Your task to perform on an android device: Open Wikipedia Image 0: 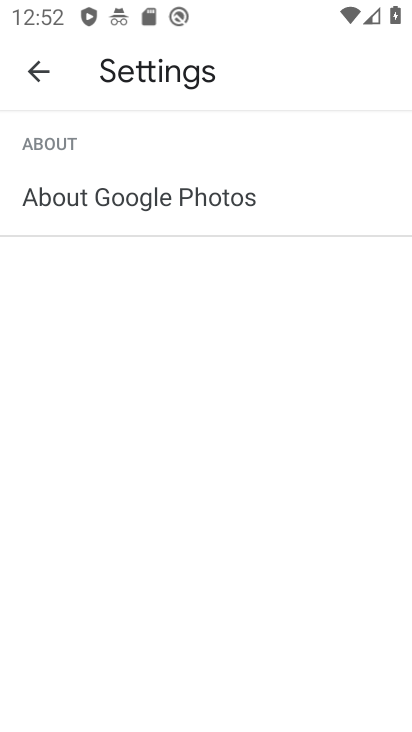
Step 0: press home button
Your task to perform on an android device: Open Wikipedia Image 1: 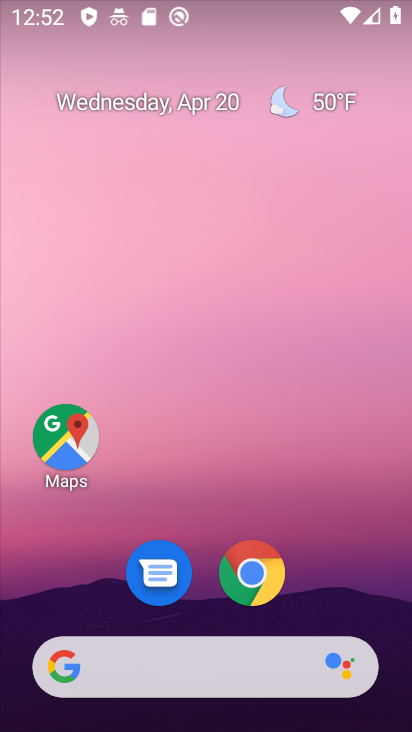
Step 1: click (250, 582)
Your task to perform on an android device: Open Wikipedia Image 2: 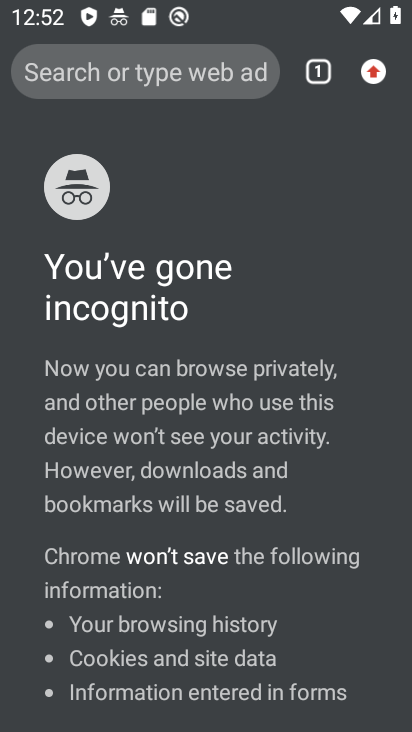
Step 2: click (373, 73)
Your task to perform on an android device: Open Wikipedia Image 3: 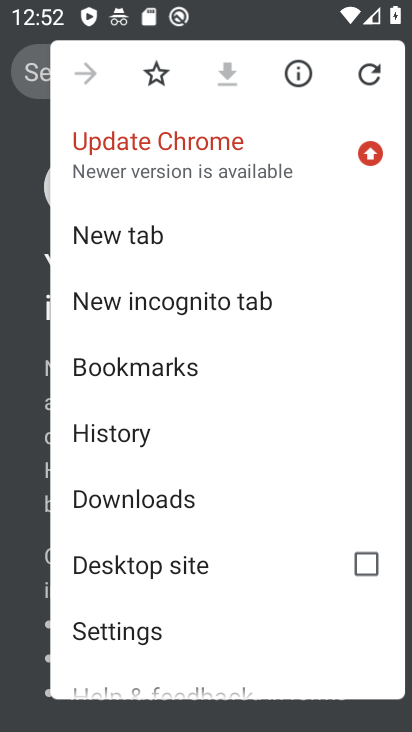
Step 3: click (147, 234)
Your task to perform on an android device: Open Wikipedia Image 4: 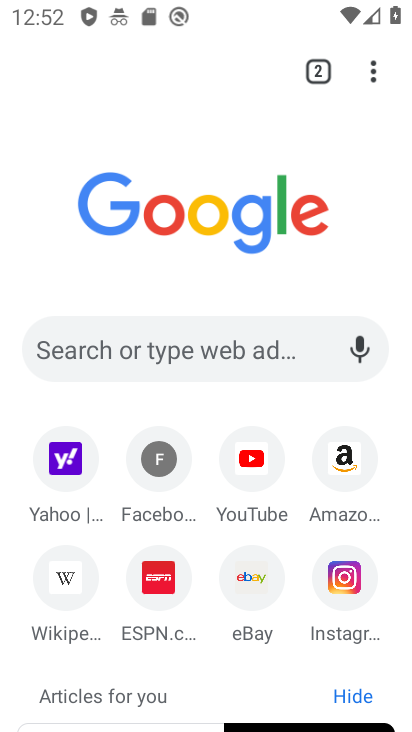
Step 4: click (60, 586)
Your task to perform on an android device: Open Wikipedia Image 5: 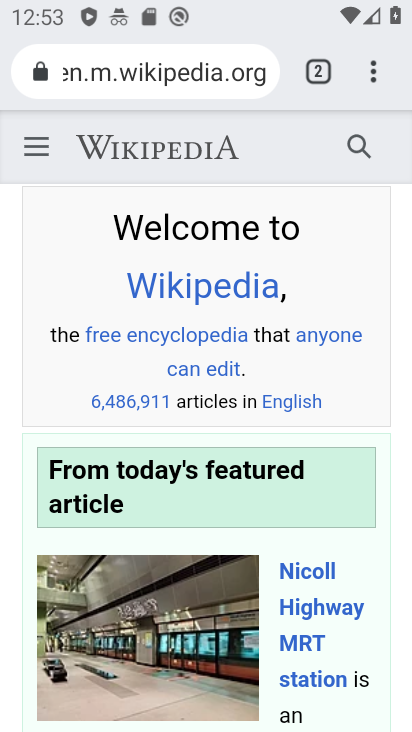
Step 5: task complete